Your task to perform on an android device: Open eBay Image 0: 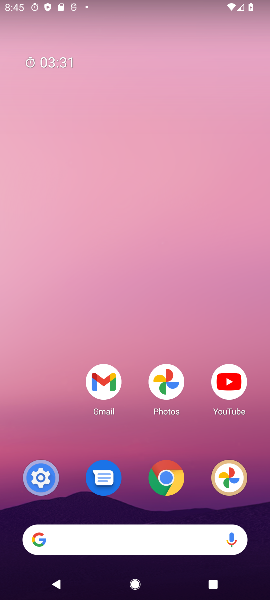
Step 0: press home button
Your task to perform on an android device: Open eBay Image 1: 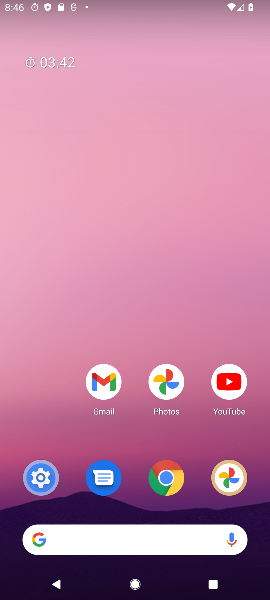
Step 1: click (158, 489)
Your task to perform on an android device: Open eBay Image 2: 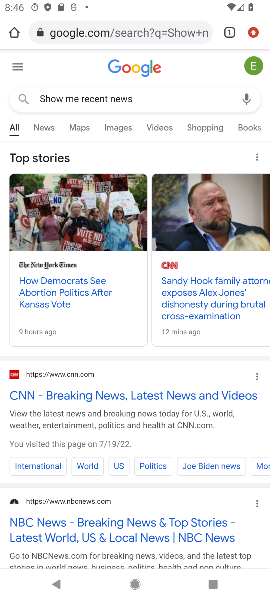
Step 2: click (147, 31)
Your task to perform on an android device: Open eBay Image 3: 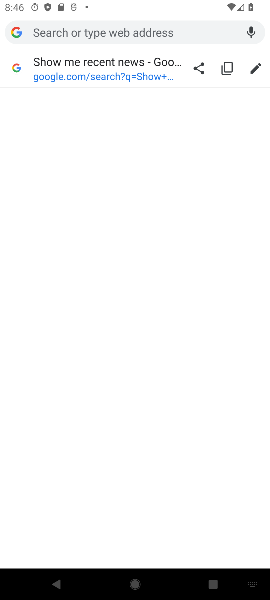
Step 3: type "eBay"
Your task to perform on an android device: Open eBay Image 4: 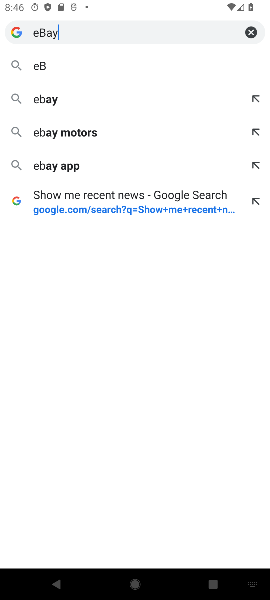
Step 4: type ""
Your task to perform on an android device: Open eBay Image 5: 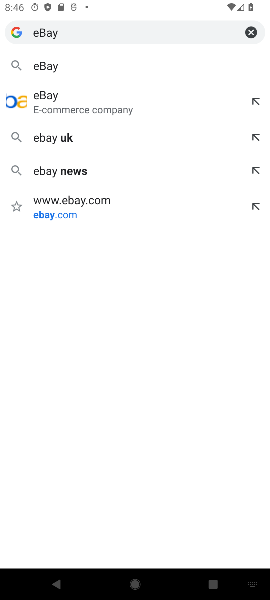
Step 5: click (83, 72)
Your task to perform on an android device: Open eBay Image 6: 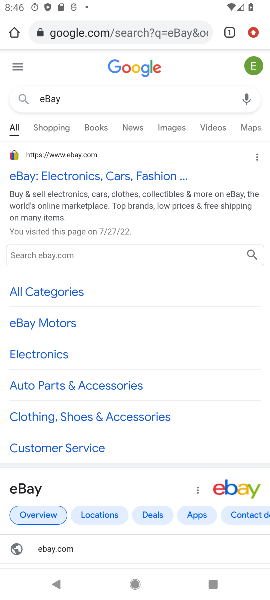
Step 6: click (55, 175)
Your task to perform on an android device: Open eBay Image 7: 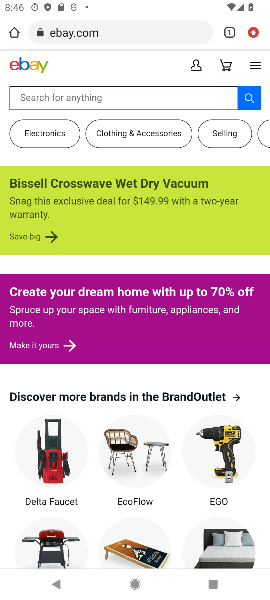
Step 7: task complete